Your task to perform on an android device: Search for the best rated vacuums on Target Image 0: 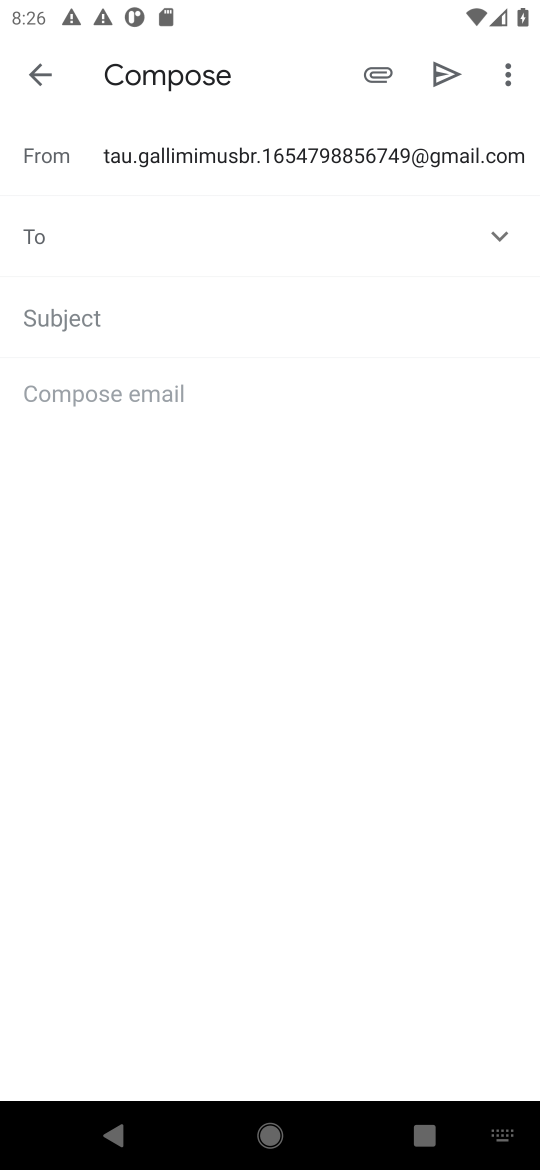
Step 0: press home button
Your task to perform on an android device: Search for the best rated vacuums on Target Image 1: 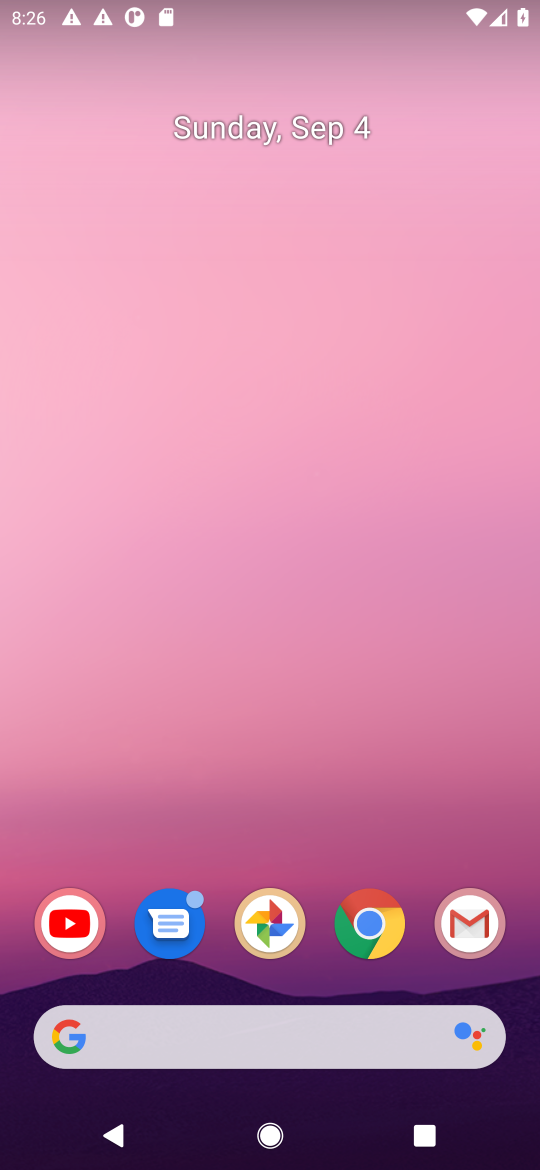
Step 1: click (365, 952)
Your task to perform on an android device: Search for the best rated vacuums on Target Image 2: 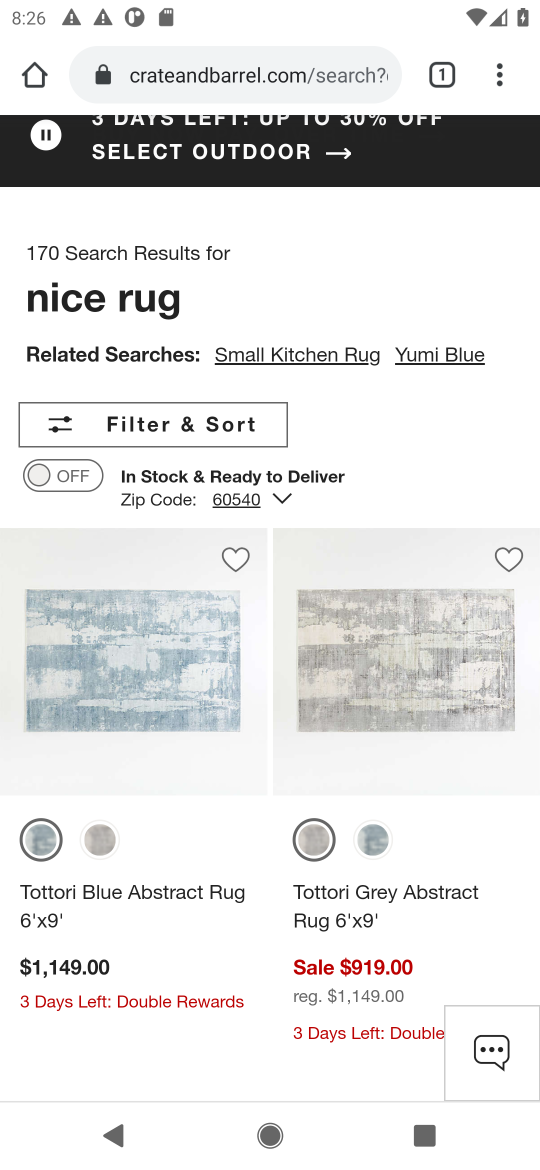
Step 2: click (307, 68)
Your task to perform on an android device: Search for the best rated vacuums on Target Image 3: 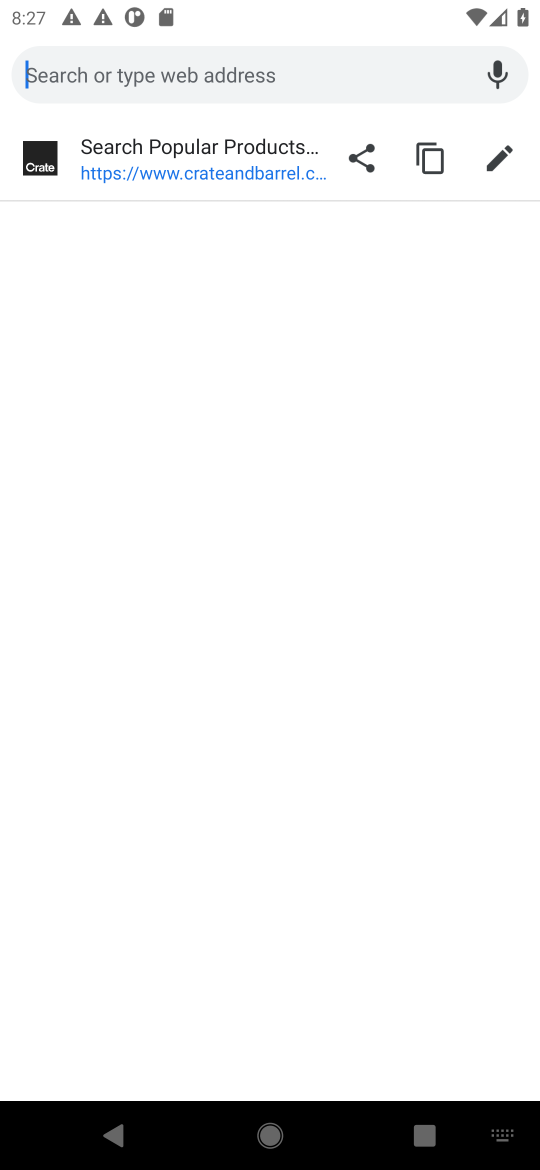
Step 3: type "target"
Your task to perform on an android device: Search for the best rated vacuums on Target Image 4: 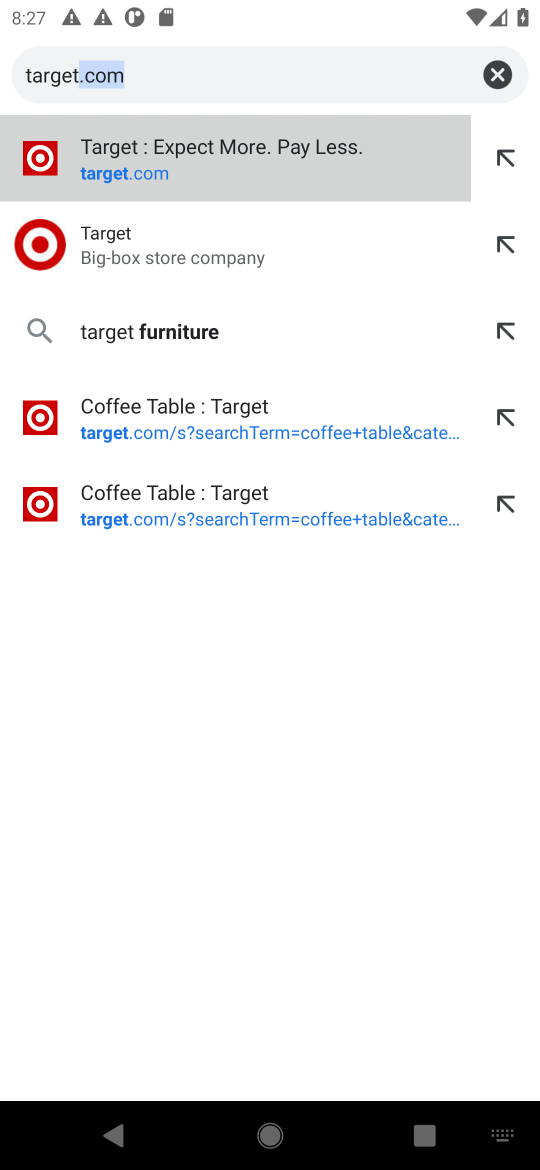
Step 4: click (205, 133)
Your task to perform on an android device: Search for the best rated vacuums on Target Image 5: 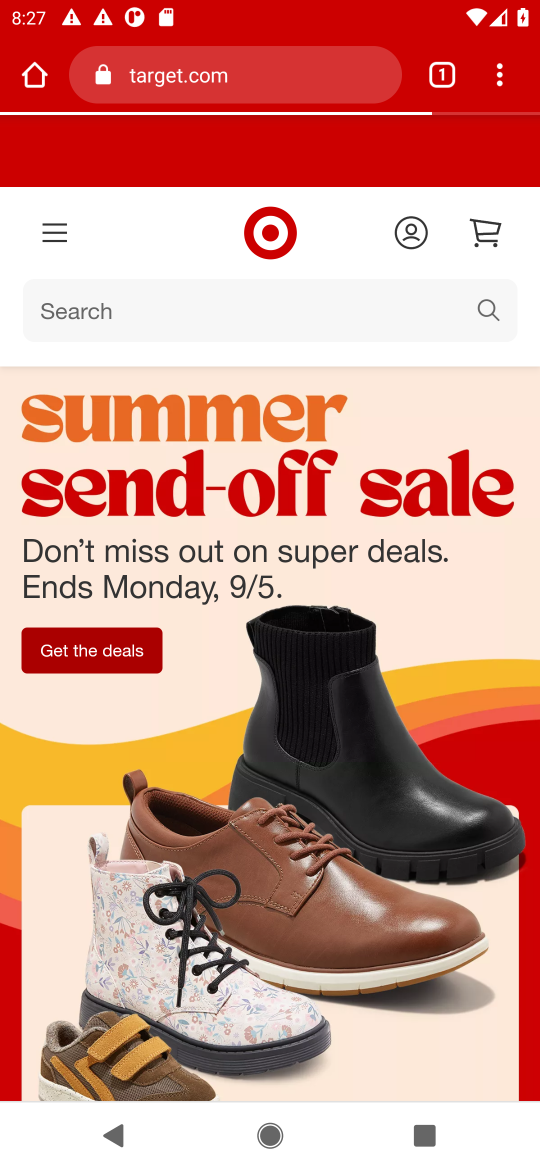
Step 5: click (205, 133)
Your task to perform on an android device: Search for the best rated vacuums on Target Image 6: 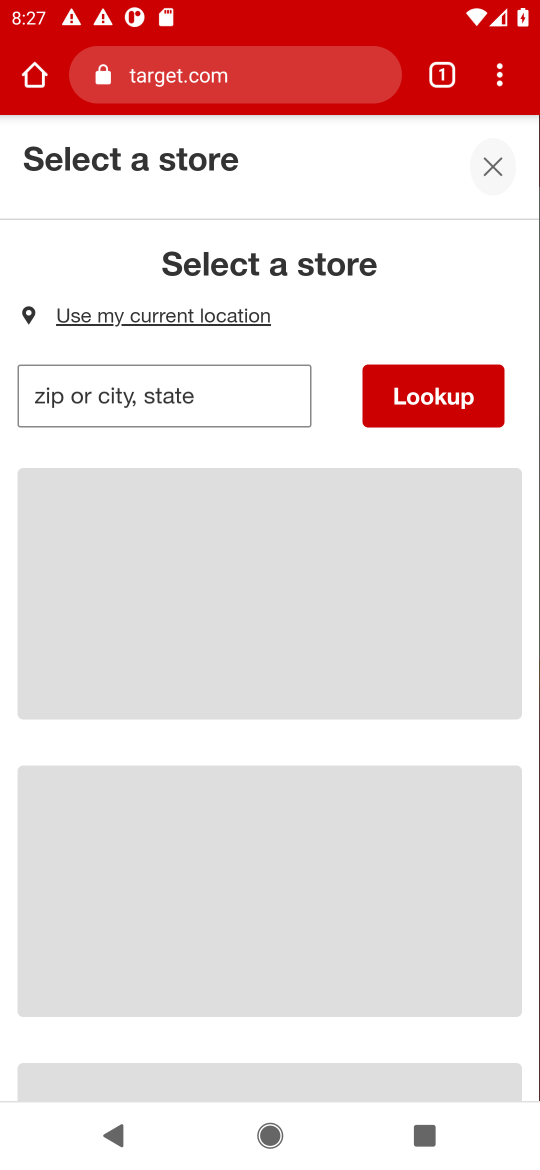
Step 6: click (499, 168)
Your task to perform on an android device: Search for the best rated vacuums on Target Image 7: 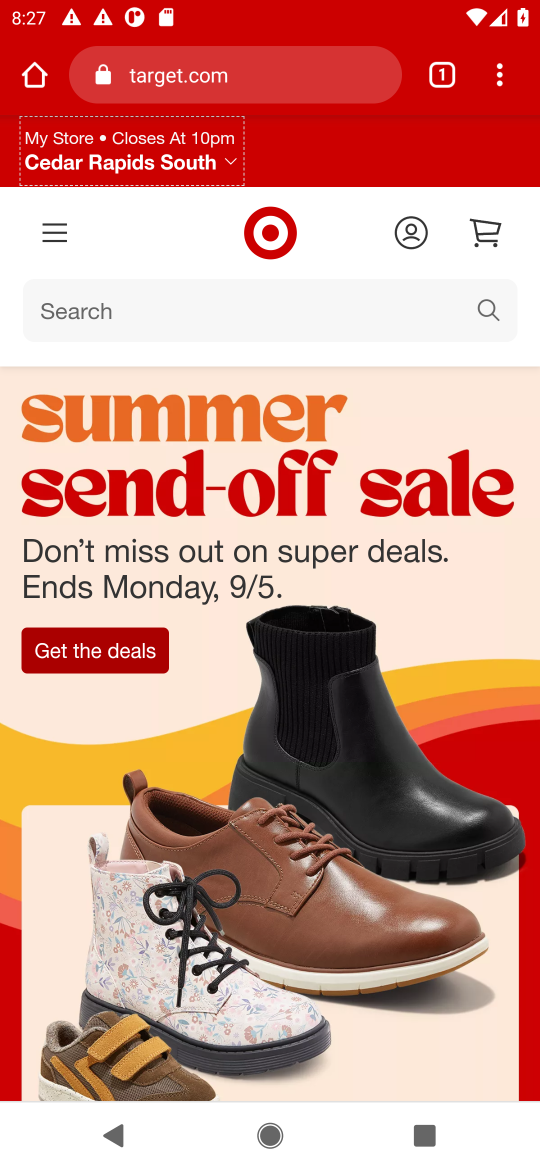
Step 7: click (105, 321)
Your task to perform on an android device: Search for the best rated vacuums on Target Image 8: 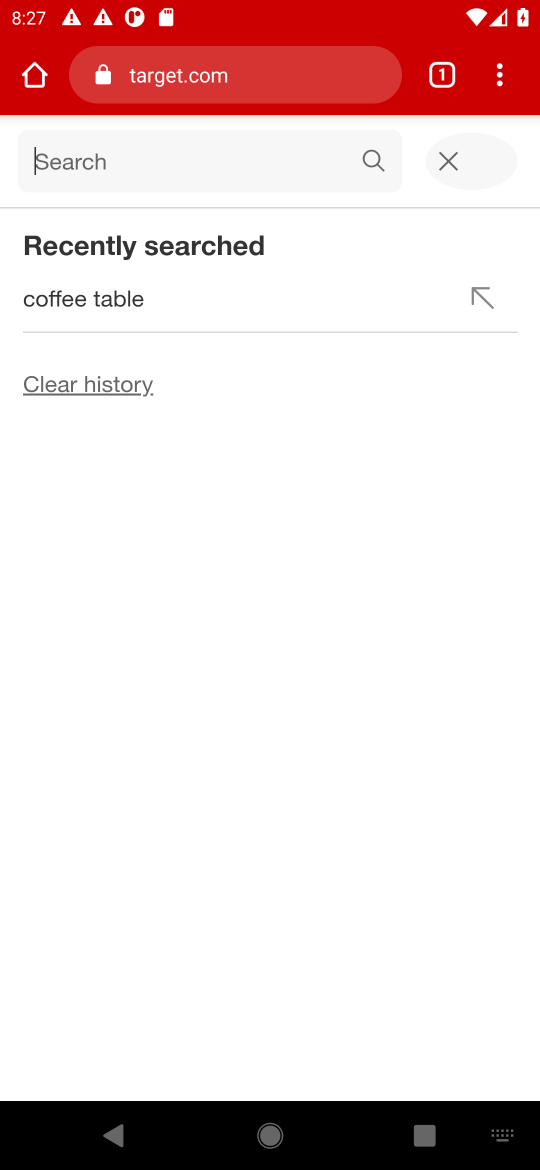
Step 8: type "vaccums"
Your task to perform on an android device: Search for the best rated vacuums on Target Image 9: 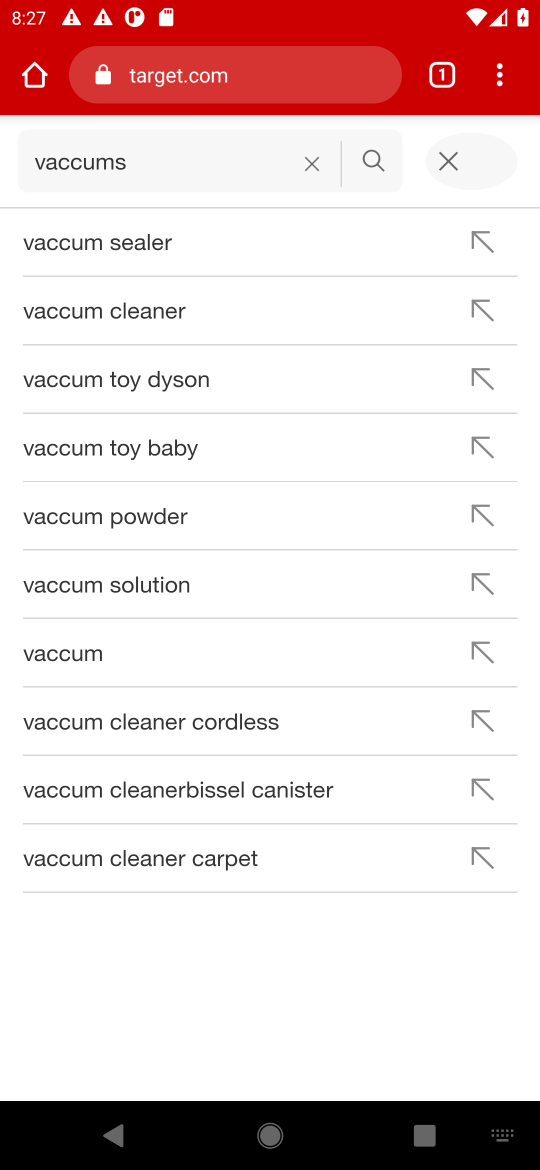
Step 9: click (375, 158)
Your task to perform on an android device: Search for the best rated vacuums on Target Image 10: 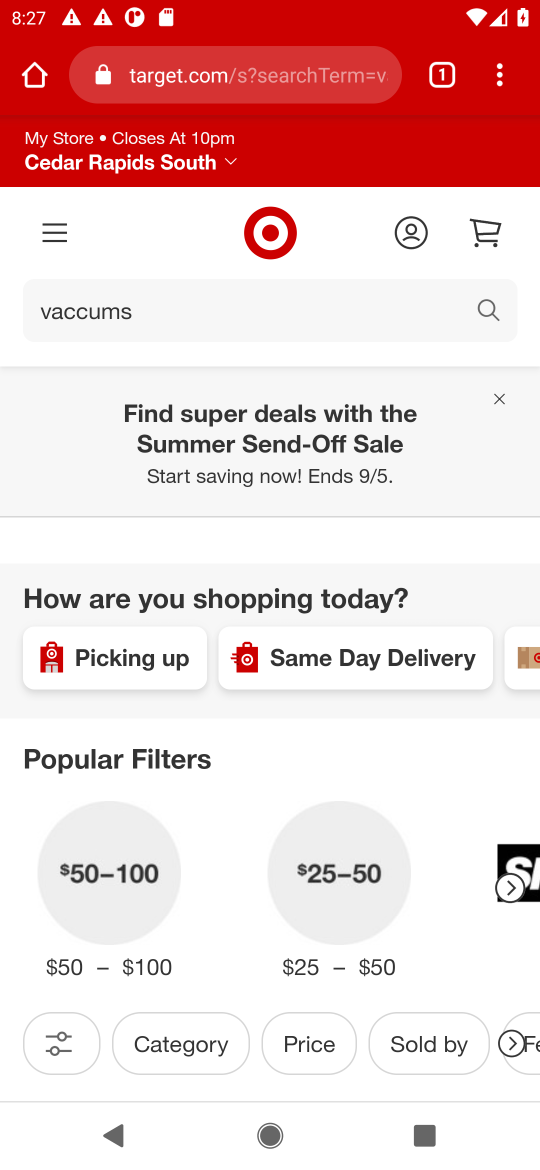
Step 10: drag from (422, 553) to (436, 254)
Your task to perform on an android device: Search for the best rated vacuums on Target Image 11: 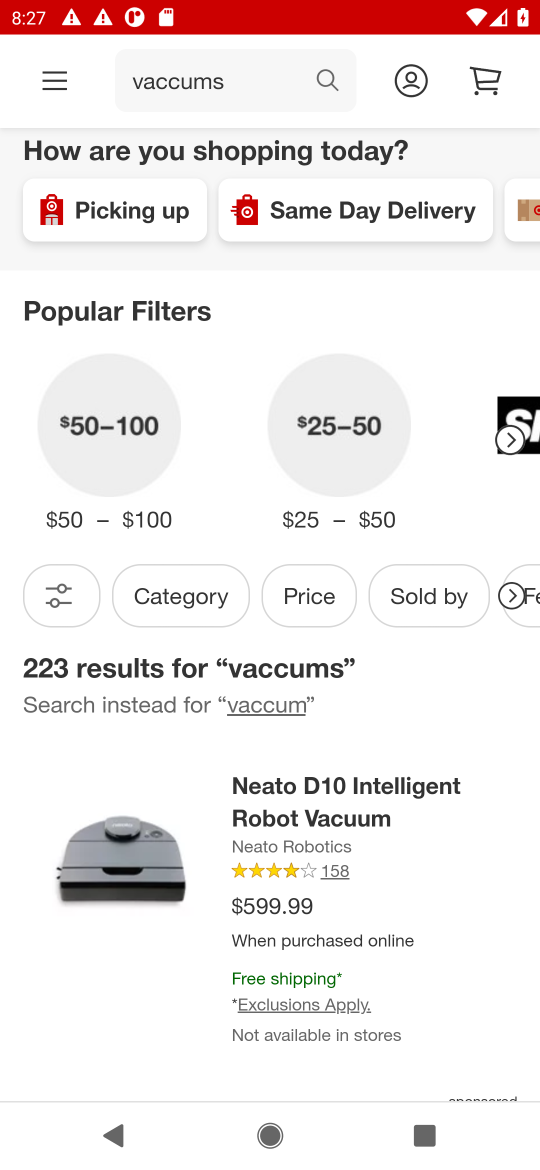
Step 11: click (53, 602)
Your task to perform on an android device: Search for the best rated vacuums on Target Image 12: 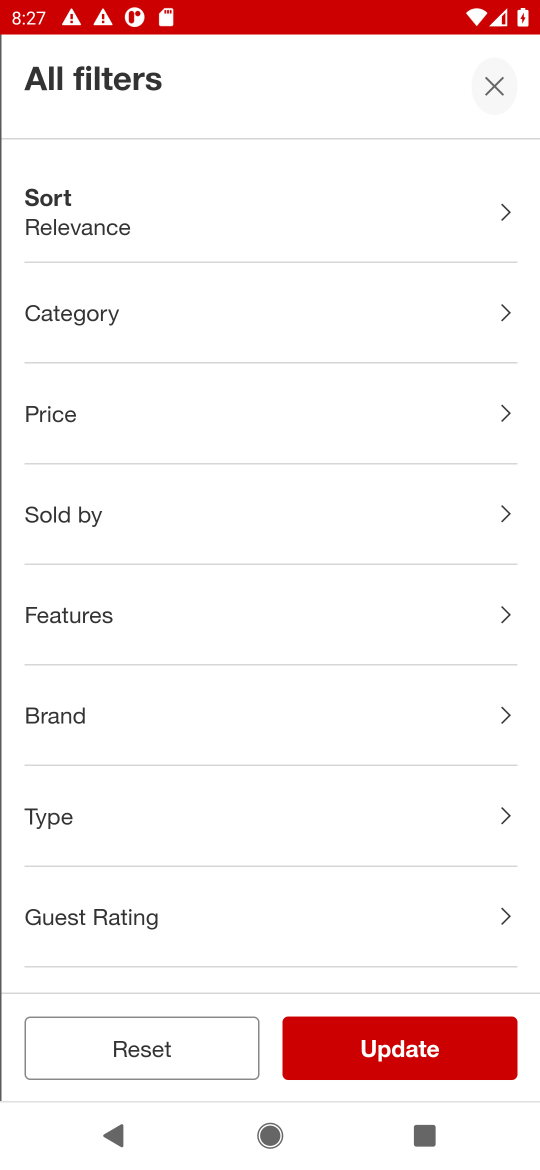
Step 12: click (240, 217)
Your task to perform on an android device: Search for the best rated vacuums on Target Image 13: 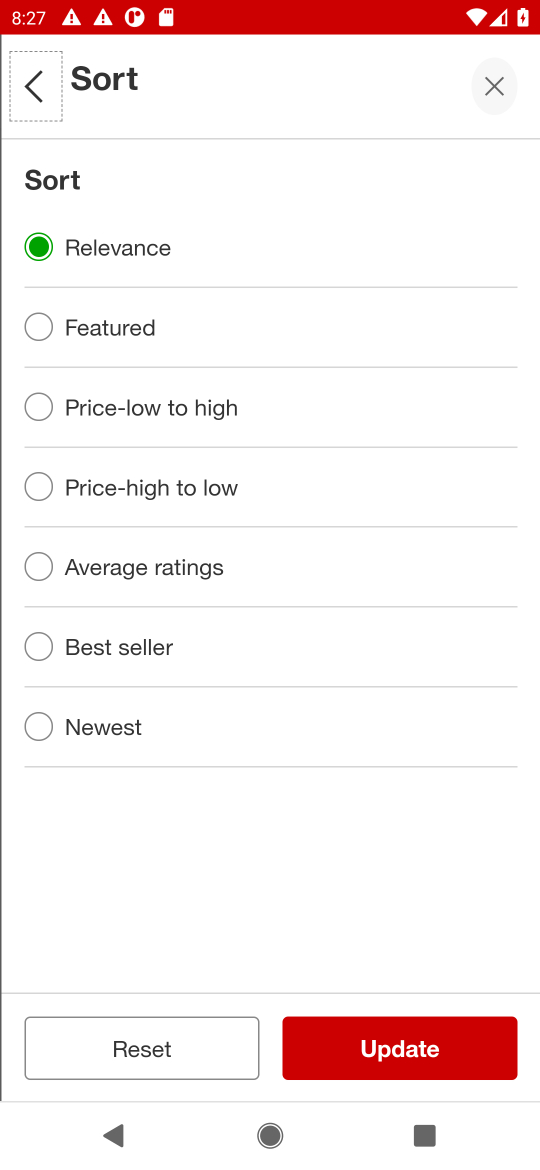
Step 13: click (156, 653)
Your task to perform on an android device: Search for the best rated vacuums on Target Image 14: 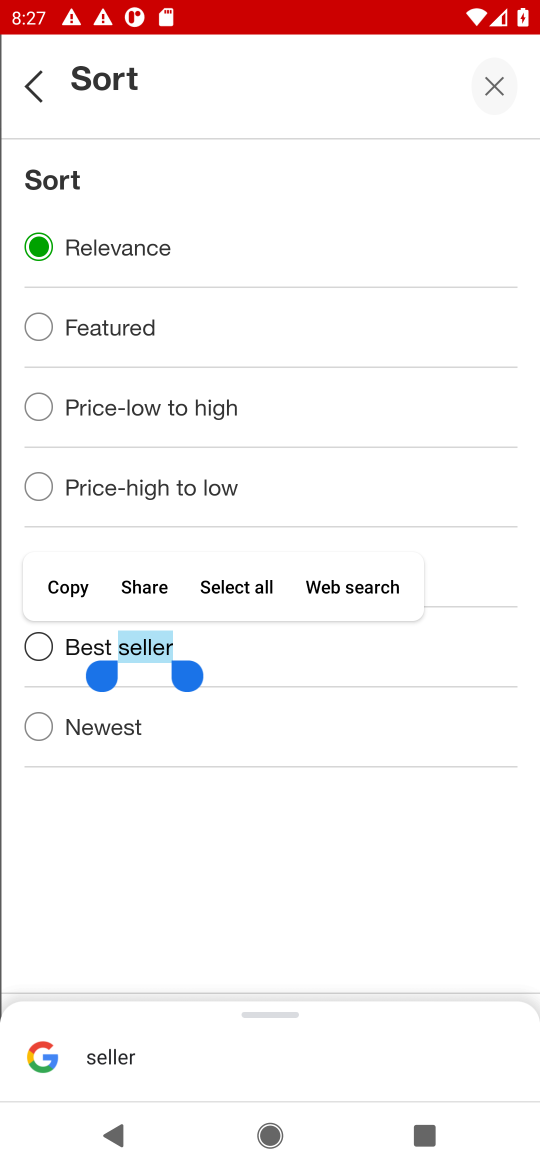
Step 14: click (44, 654)
Your task to perform on an android device: Search for the best rated vacuums on Target Image 15: 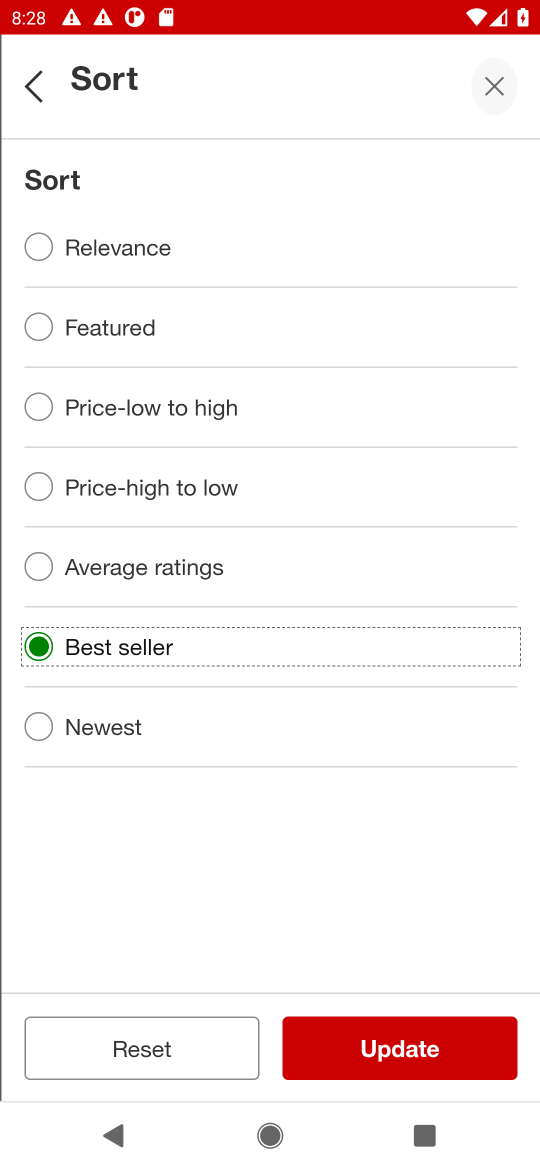
Step 15: click (415, 1041)
Your task to perform on an android device: Search for the best rated vacuums on Target Image 16: 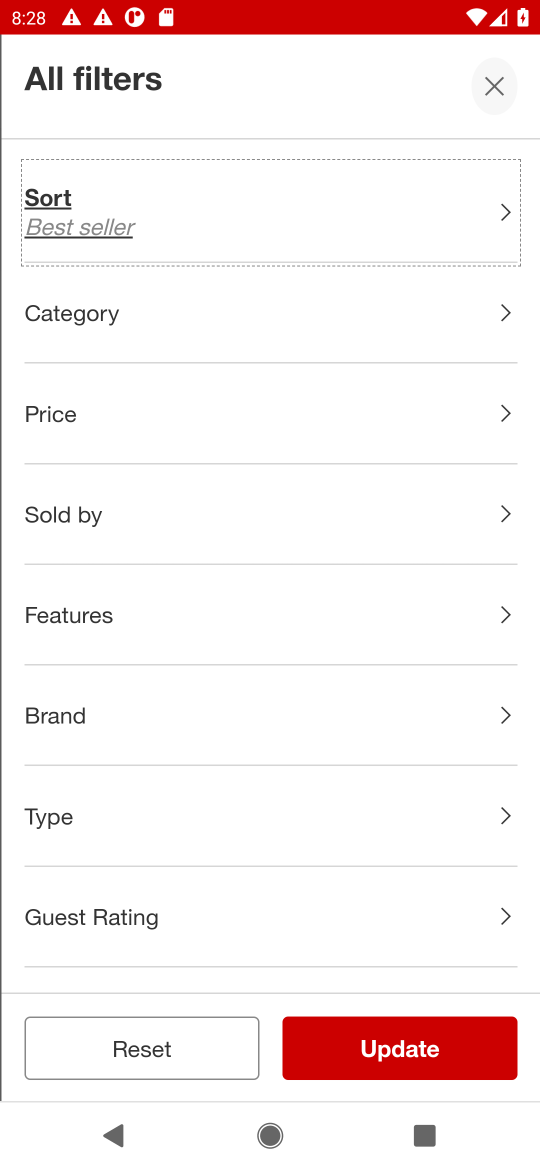
Step 16: click (415, 1041)
Your task to perform on an android device: Search for the best rated vacuums on Target Image 17: 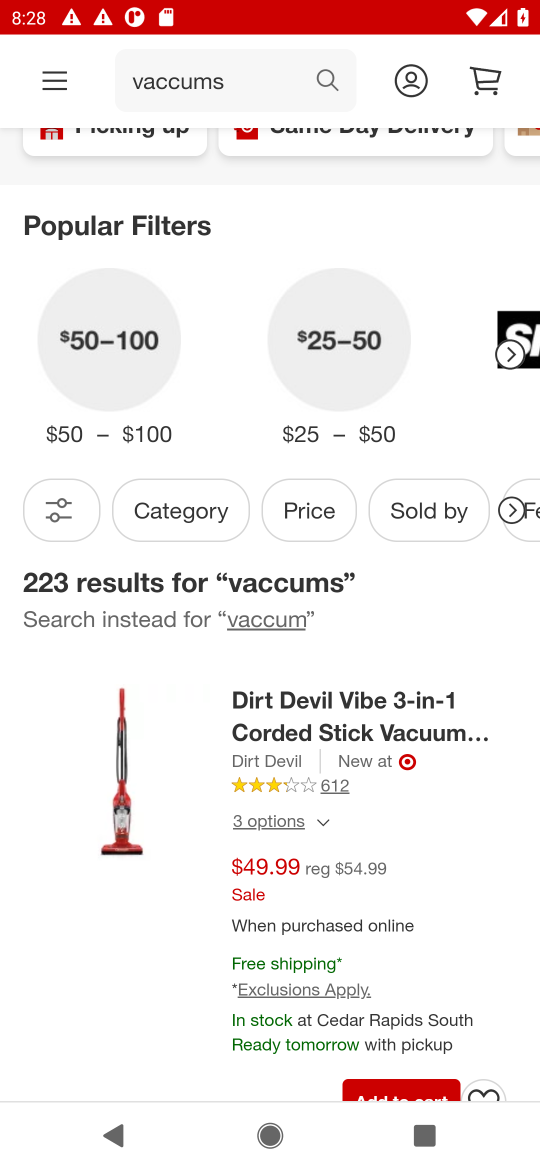
Step 17: task complete